Your task to perform on an android device: see sites visited before in the chrome app Image 0: 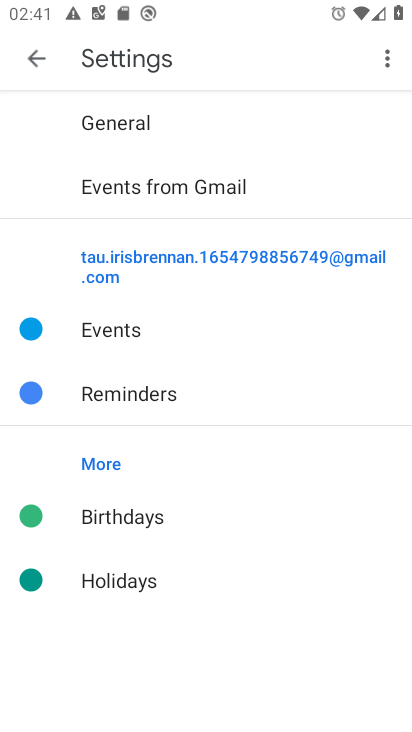
Step 0: press home button
Your task to perform on an android device: see sites visited before in the chrome app Image 1: 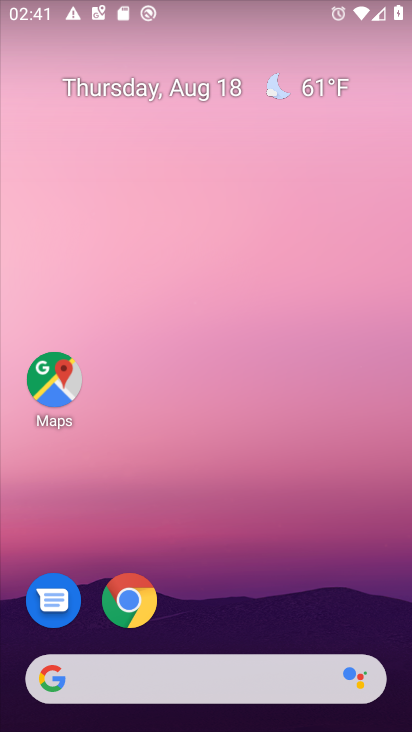
Step 1: click (128, 599)
Your task to perform on an android device: see sites visited before in the chrome app Image 2: 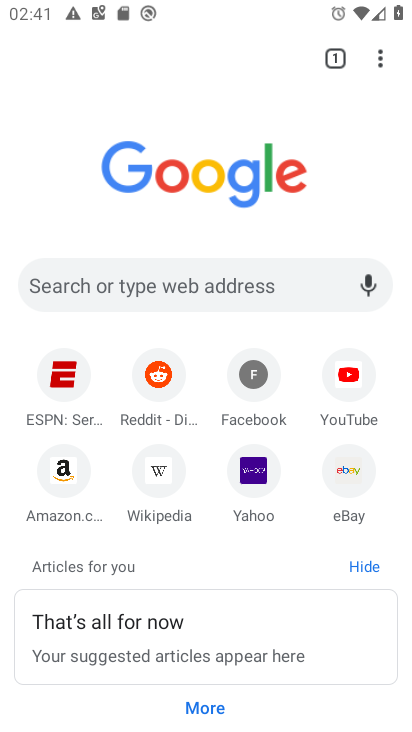
Step 2: task complete